Your task to perform on an android device: Open Reddit.com Image 0: 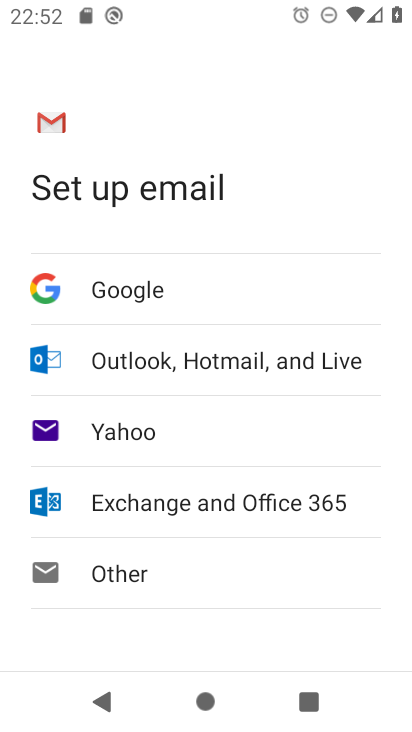
Step 0: press home button
Your task to perform on an android device: Open Reddit.com Image 1: 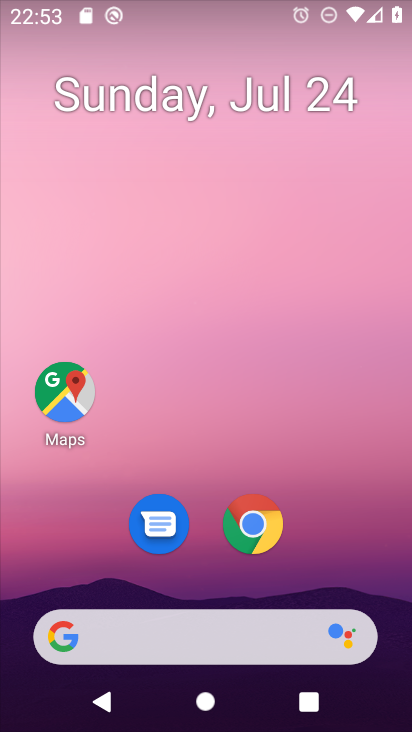
Step 1: click (261, 525)
Your task to perform on an android device: Open Reddit.com Image 2: 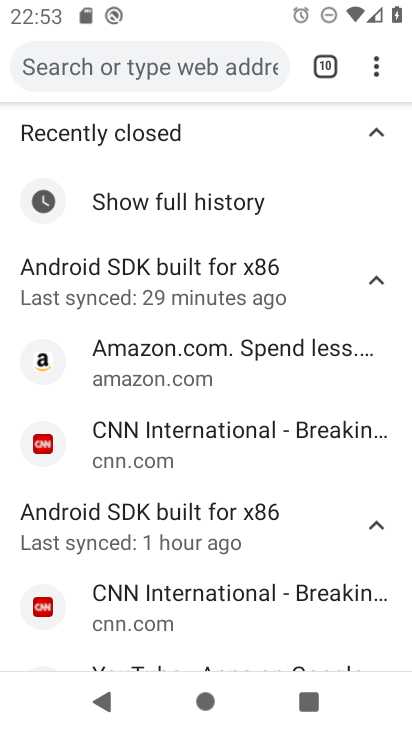
Step 2: drag from (378, 63) to (208, 126)
Your task to perform on an android device: Open Reddit.com Image 3: 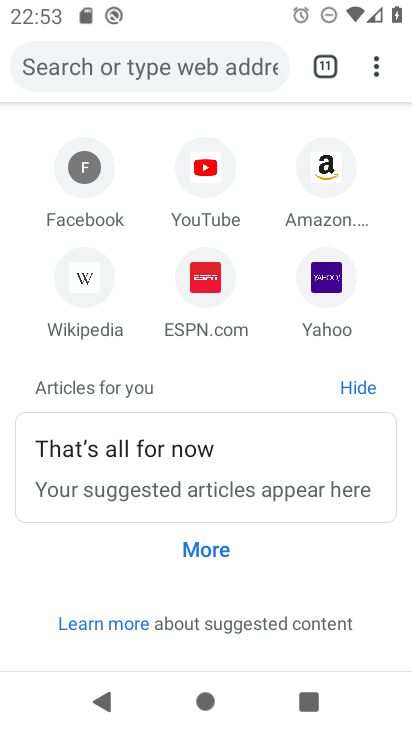
Step 3: click (147, 66)
Your task to perform on an android device: Open Reddit.com Image 4: 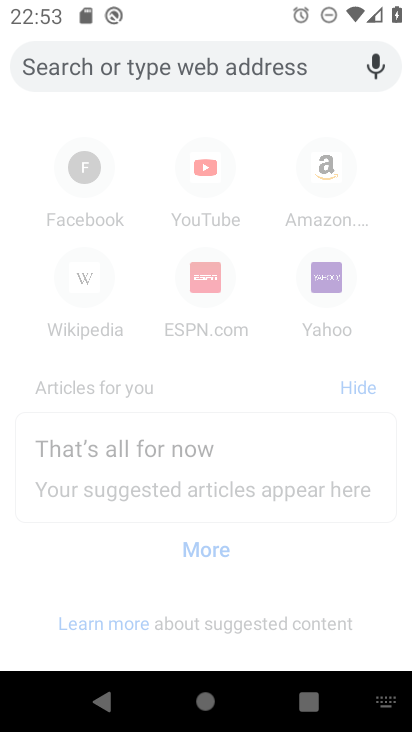
Step 4: type "reddit.com"
Your task to perform on an android device: Open Reddit.com Image 5: 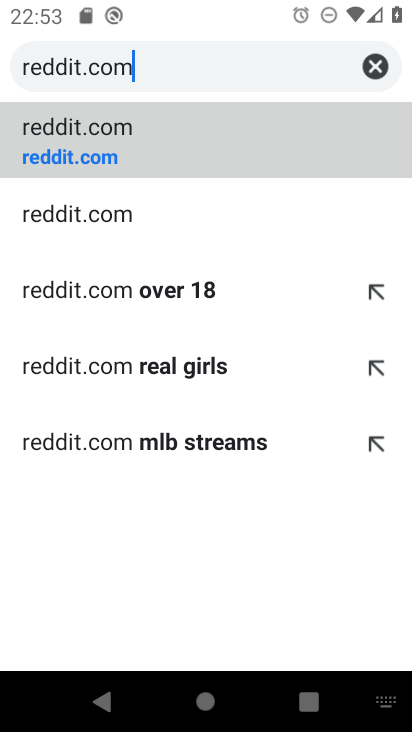
Step 5: click (115, 147)
Your task to perform on an android device: Open Reddit.com Image 6: 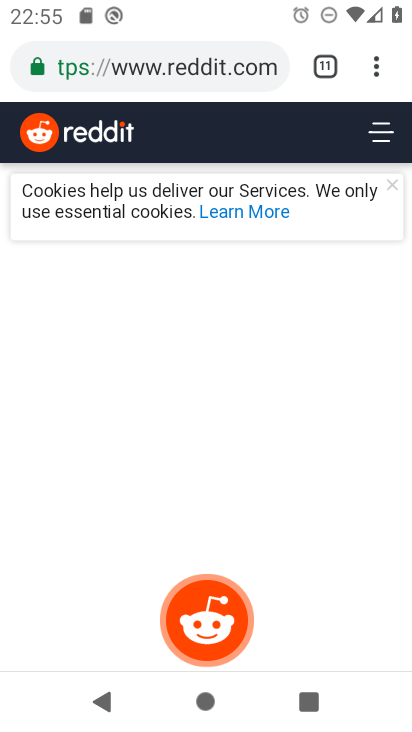
Step 6: task complete